Your task to perform on an android device: turn on notifications settings in the gmail app Image 0: 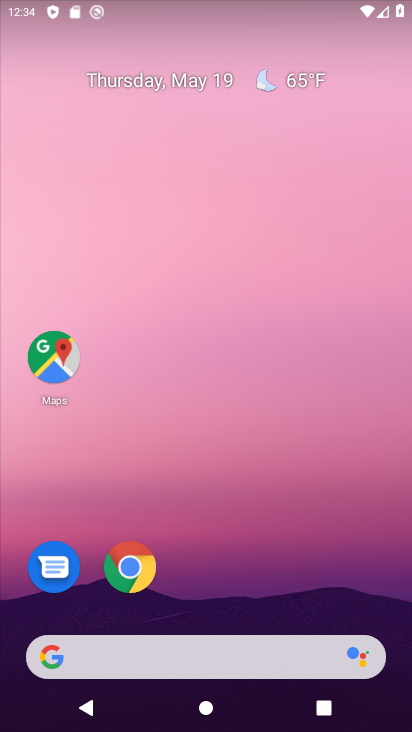
Step 0: drag from (253, 592) to (277, 143)
Your task to perform on an android device: turn on notifications settings in the gmail app Image 1: 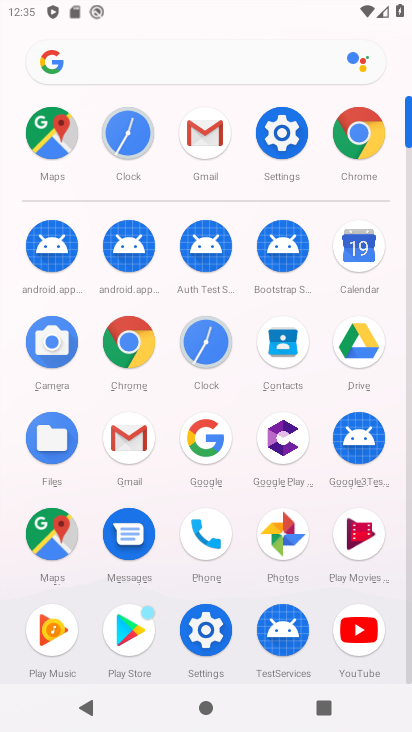
Step 1: click (210, 135)
Your task to perform on an android device: turn on notifications settings in the gmail app Image 2: 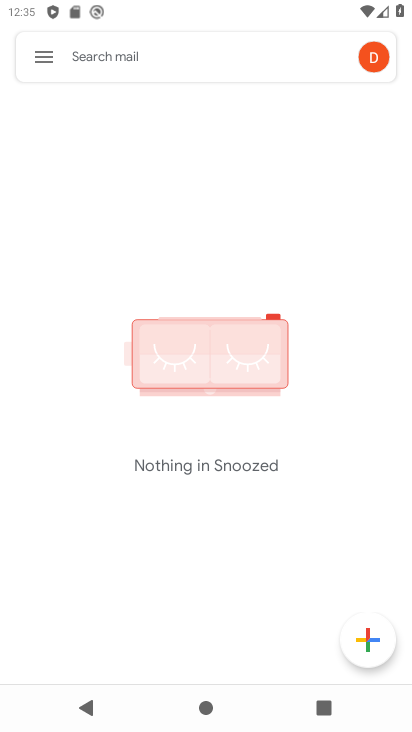
Step 2: click (44, 54)
Your task to perform on an android device: turn on notifications settings in the gmail app Image 3: 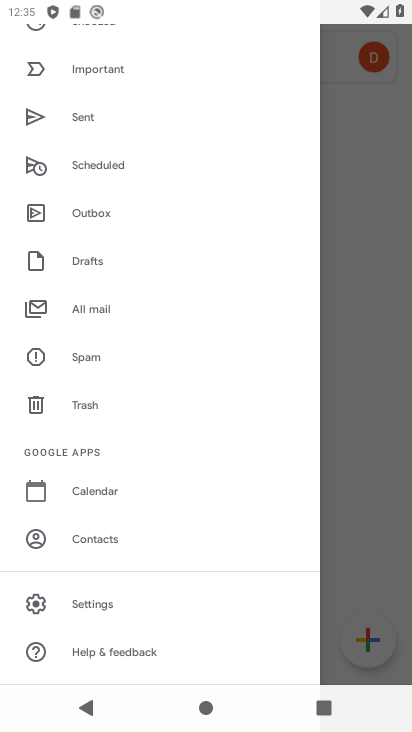
Step 3: click (108, 600)
Your task to perform on an android device: turn on notifications settings in the gmail app Image 4: 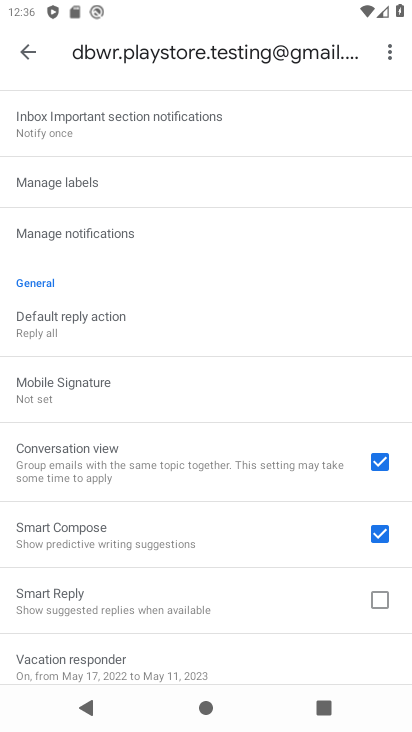
Step 4: click (144, 234)
Your task to perform on an android device: turn on notifications settings in the gmail app Image 5: 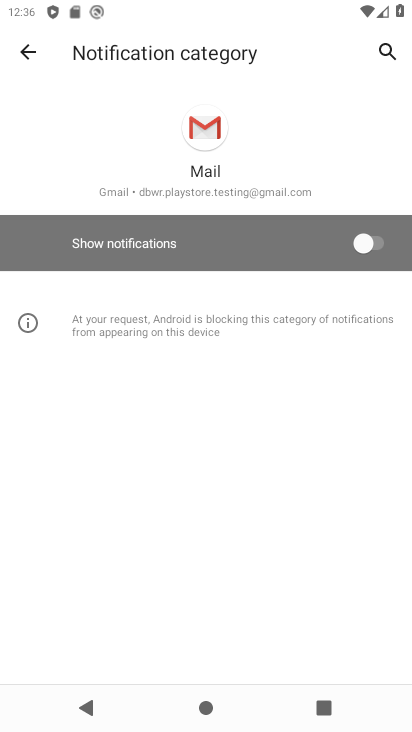
Step 5: click (382, 245)
Your task to perform on an android device: turn on notifications settings in the gmail app Image 6: 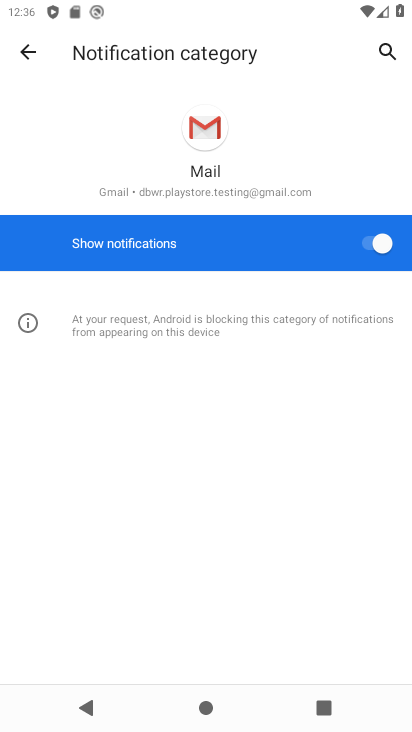
Step 6: task complete